Your task to perform on an android device: turn on bluetooth scan Image 0: 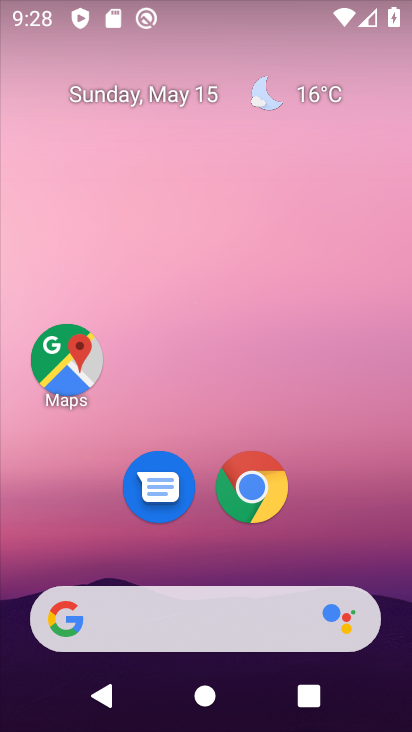
Step 0: click (375, 117)
Your task to perform on an android device: turn on bluetooth scan Image 1: 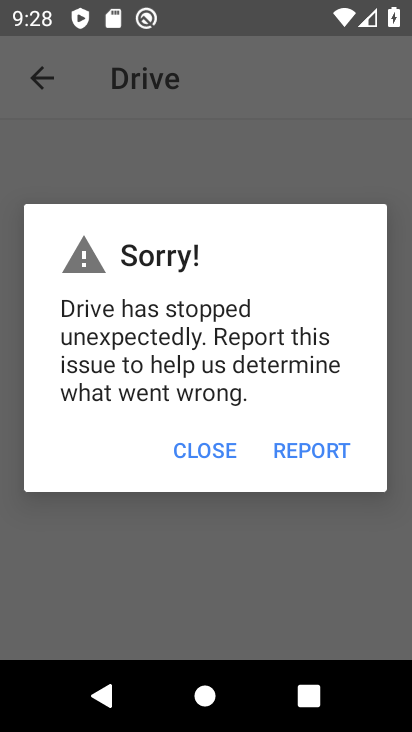
Step 1: click (177, 446)
Your task to perform on an android device: turn on bluetooth scan Image 2: 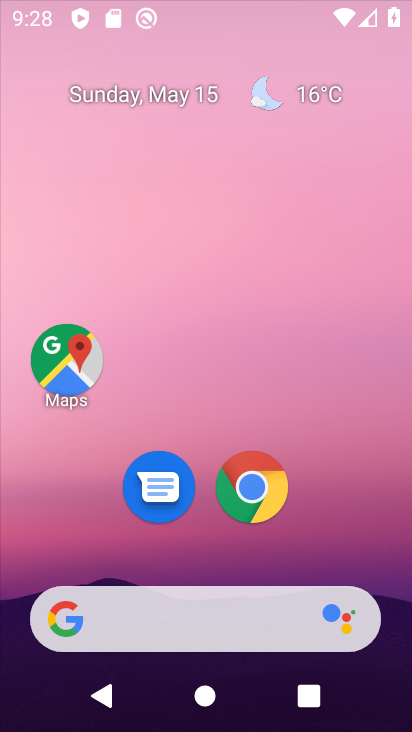
Step 2: press home button
Your task to perform on an android device: turn on bluetooth scan Image 3: 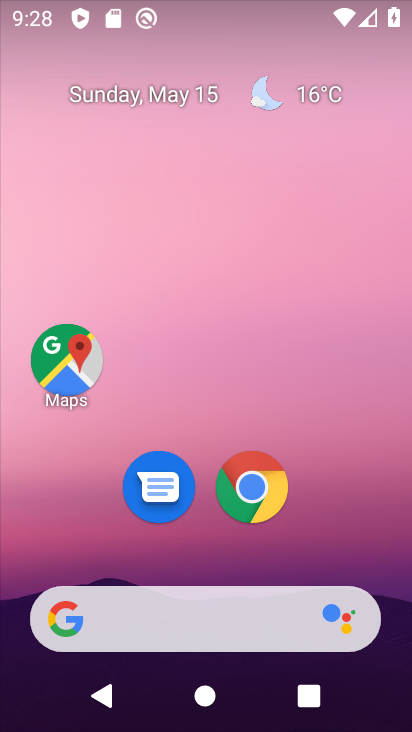
Step 3: drag from (367, 506) to (330, 61)
Your task to perform on an android device: turn on bluetooth scan Image 4: 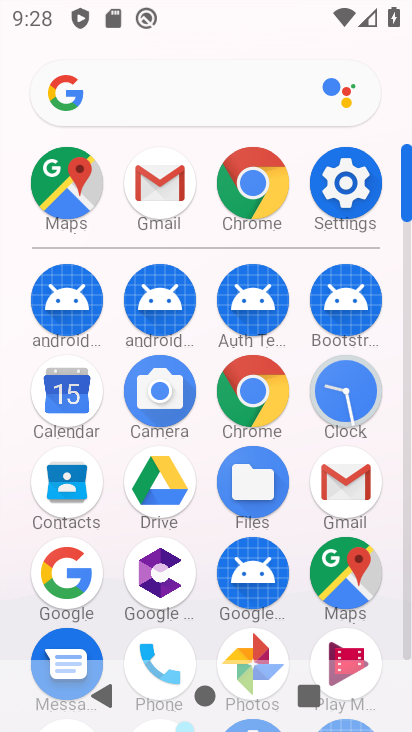
Step 4: click (346, 202)
Your task to perform on an android device: turn on bluetooth scan Image 5: 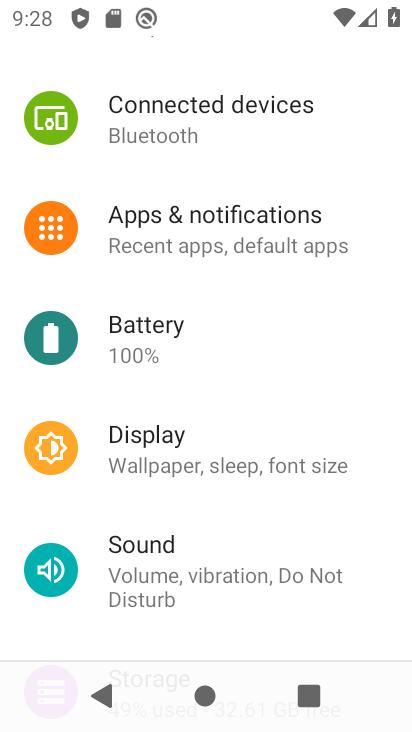
Step 5: drag from (330, 528) to (309, 204)
Your task to perform on an android device: turn on bluetooth scan Image 6: 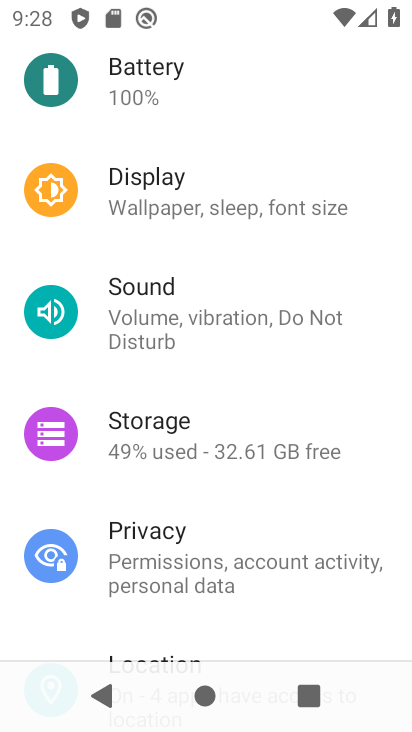
Step 6: drag from (303, 506) to (316, 194)
Your task to perform on an android device: turn on bluetooth scan Image 7: 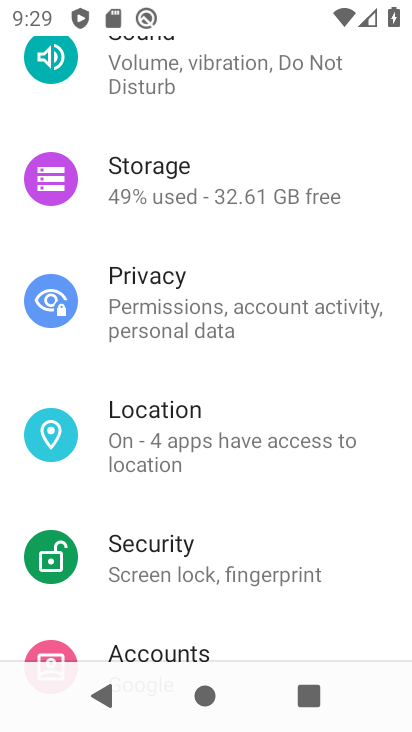
Step 7: drag from (342, 183) to (317, 543)
Your task to perform on an android device: turn on bluetooth scan Image 8: 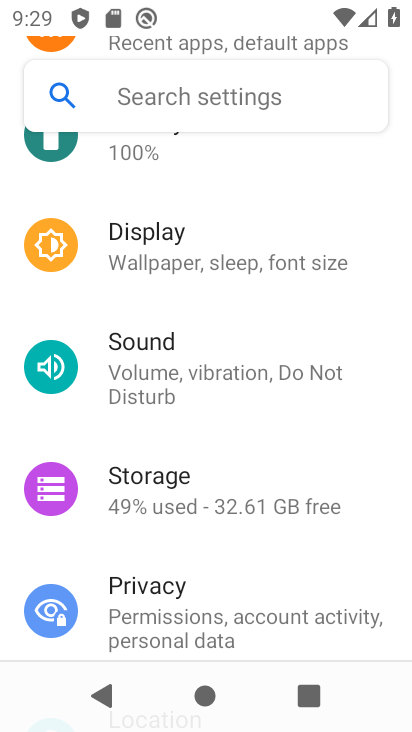
Step 8: drag from (306, 550) to (327, 217)
Your task to perform on an android device: turn on bluetooth scan Image 9: 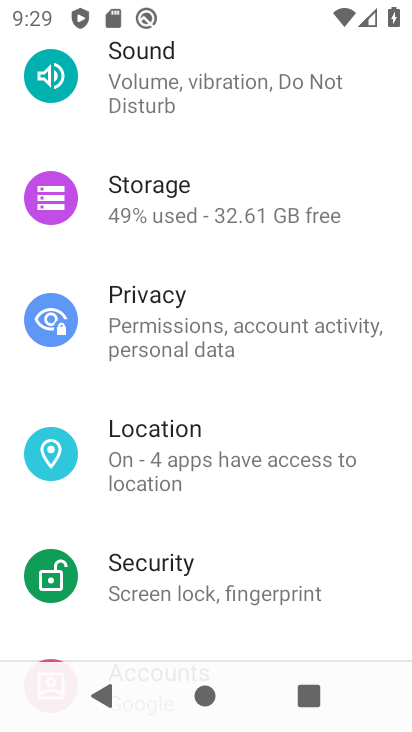
Step 9: click (257, 467)
Your task to perform on an android device: turn on bluetooth scan Image 10: 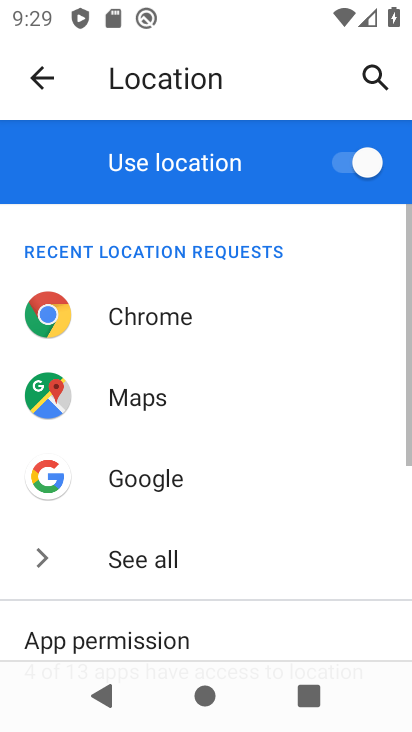
Step 10: drag from (223, 611) to (234, 310)
Your task to perform on an android device: turn on bluetooth scan Image 11: 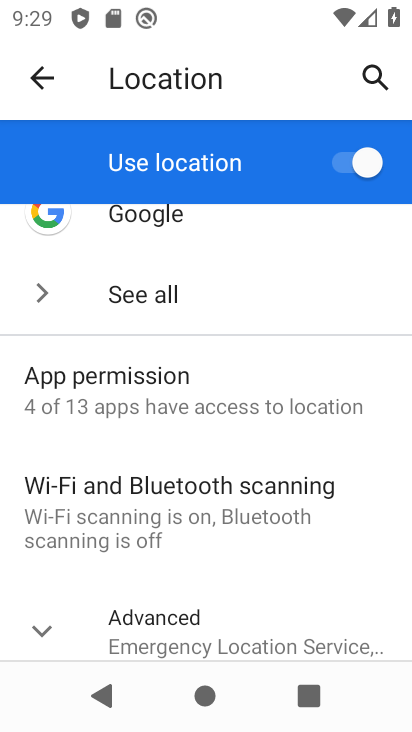
Step 11: click (266, 510)
Your task to perform on an android device: turn on bluetooth scan Image 12: 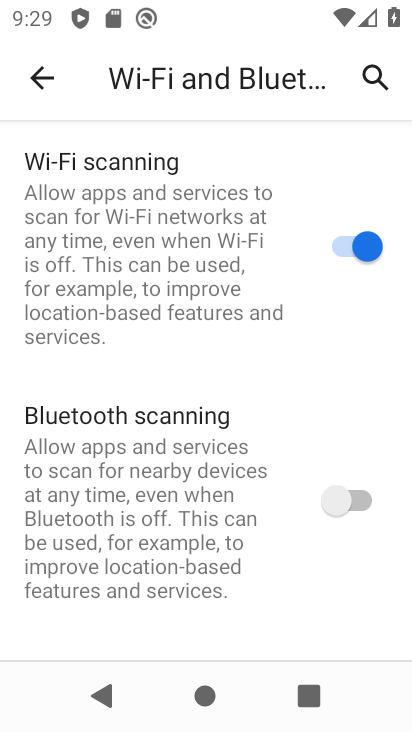
Step 12: click (368, 501)
Your task to perform on an android device: turn on bluetooth scan Image 13: 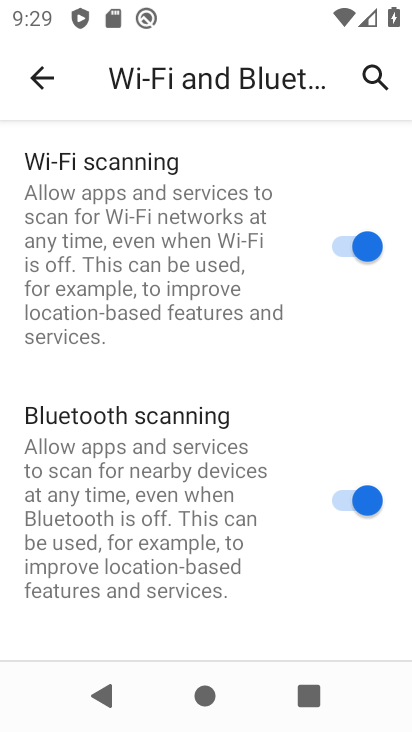
Step 13: task complete